Your task to perform on an android device: turn off improve location accuracy Image 0: 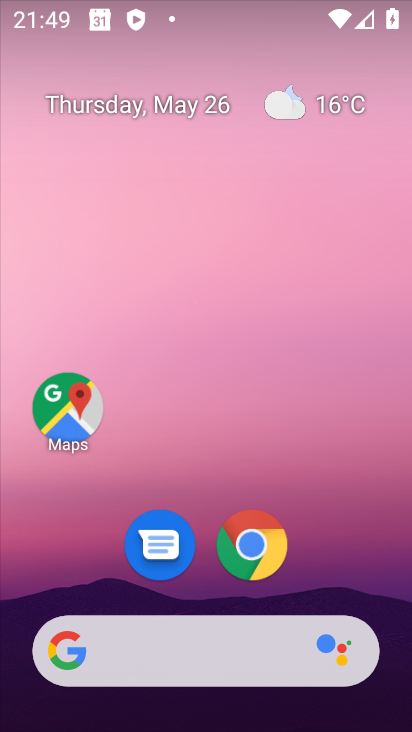
Step 0: drag from (353, 439) to (374, 37)
Your task to perform on an android device: turn off improve location accuracy Image 1: 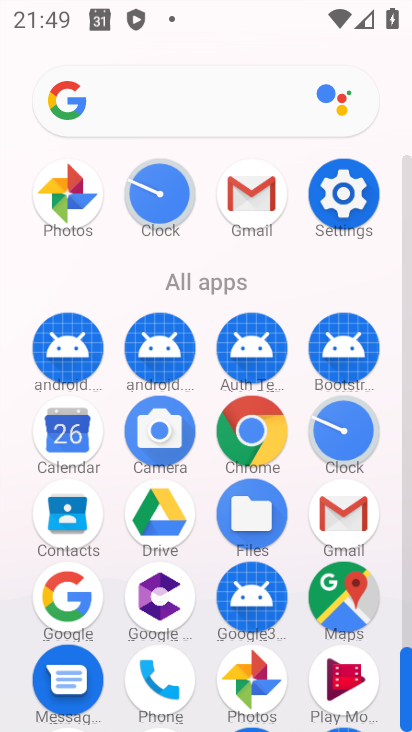
Step 1: click (345, 180)
Your task to perform on an android device: turn off improve location accuracy Image 2: 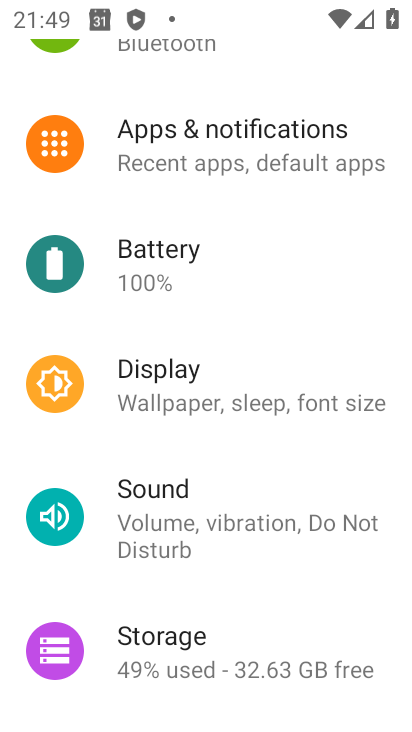
Step 2: drag from (254, 612) to (236, 150)
Your task to perform on an android device: turn off improve location accuracy Image 3: 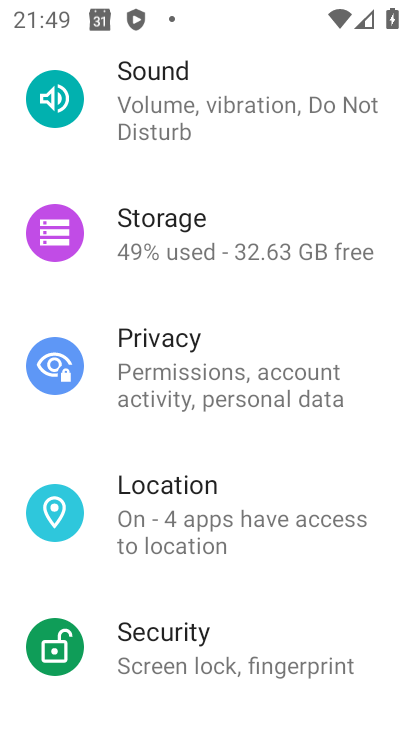
Step 3: click (189, 499)
Your task to perform on an android device: turn off improve location accuracy Image 4: 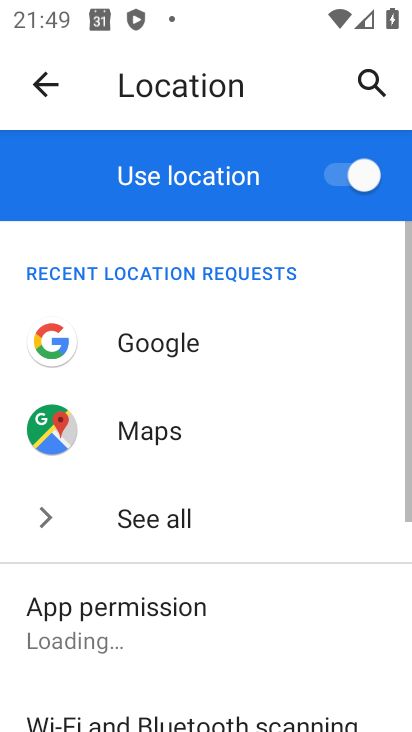
Step 4: drag from (269, 631) to (259, 249)
Your task to perform on an android device: turn off improve location accuracy Image 5: 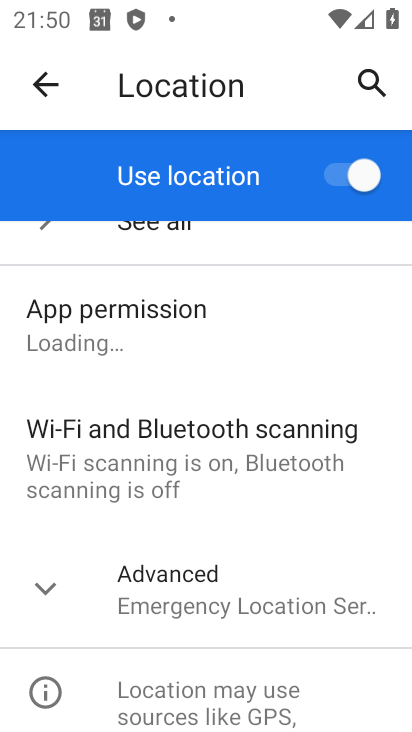
Step 5: click (194, 609)
Your task to perform on an android device: turn off improve location accuracy Image 6: 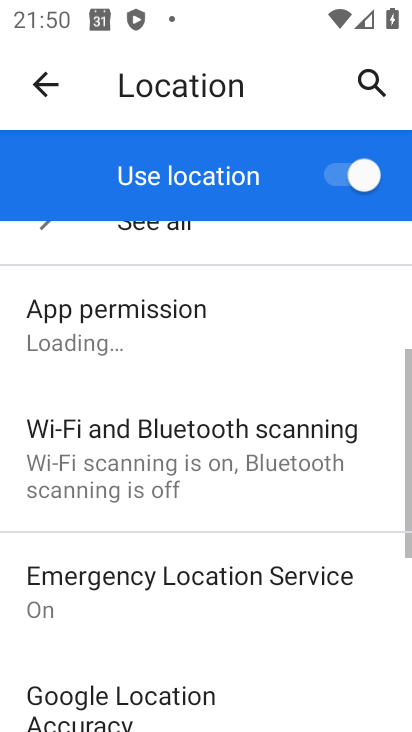
Step 6: drag from (296, 622) to (294, 257)
Your task to perform on an android device: turn off improve location accuracy Image 7: 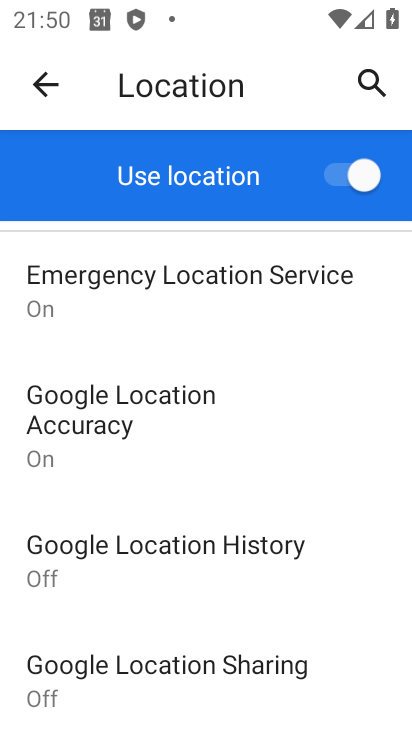
Step 7: click (177, 420)
Your task to perform on an android device: turn off improve location accuracy Image 8: 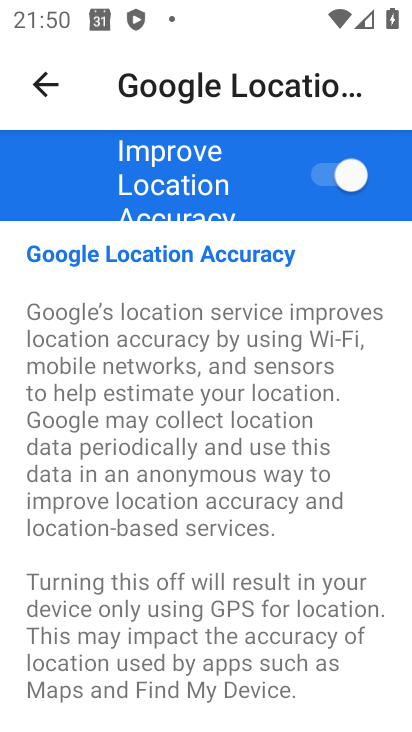
Step 8: click (362, 184)
Your task to perform on an android device: turn off improve location accuracy Image 9: 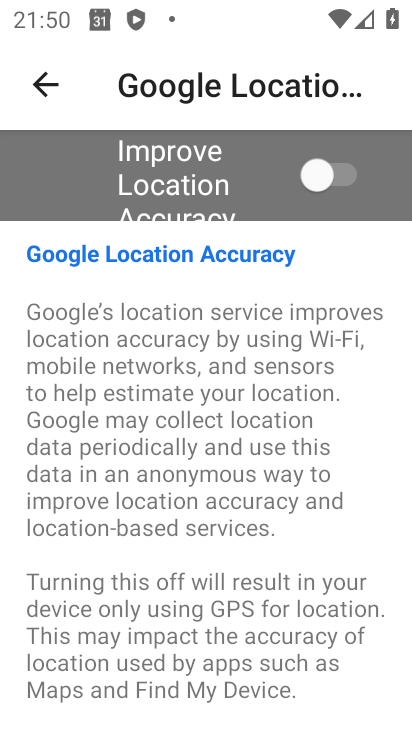
Step 9: task complete